Your task to perform on an android device: Go to accessibility settings Image 0: 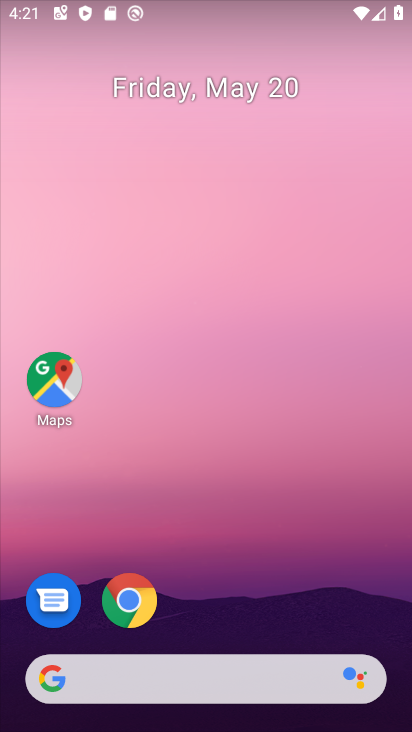
Step 0: drag from (250, 587) to (332, 160)
Your task to perform on an android device: Go to accessibility settings Image 1: 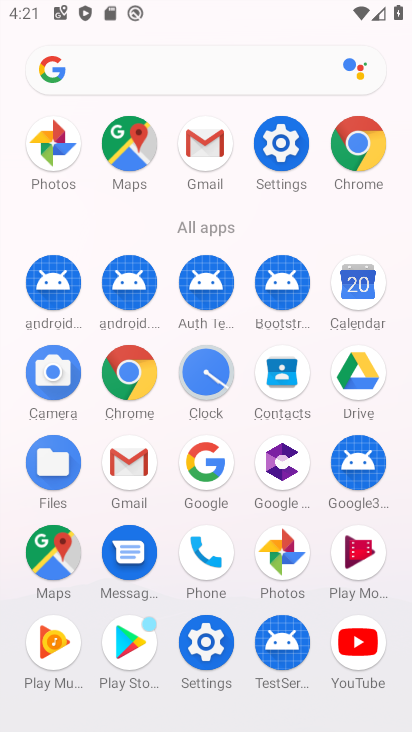
Step 1: click (291, 141)
Your task to perform on an android device: Go to accessibility settings Image 2: 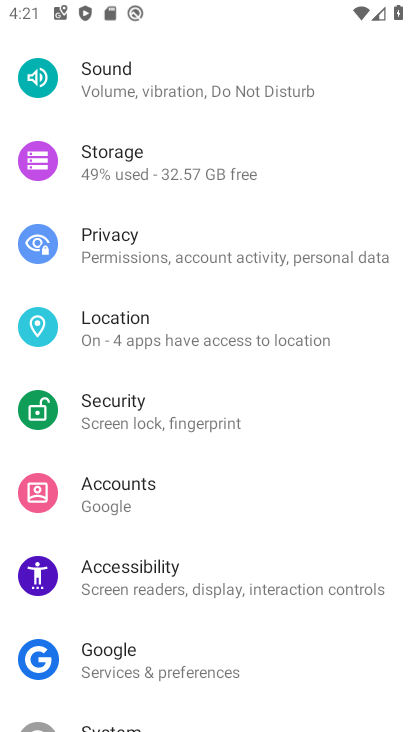
Step 2: click (185, 571)
Your task to perform on an android device: Go to accessibility settings Image 3: 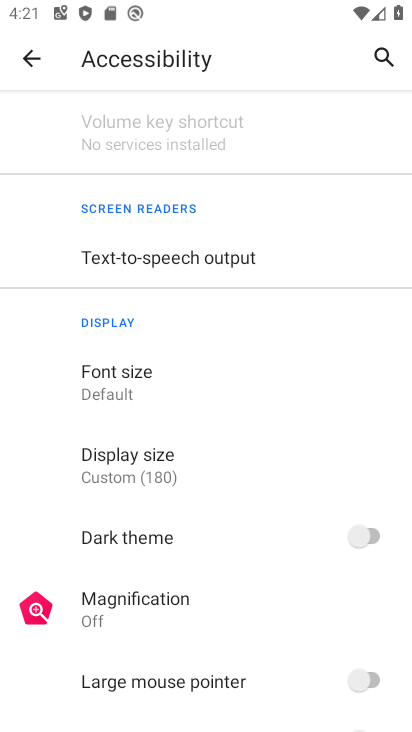
Step 3: task complete